Your task to perform on an android device: Open calendar and show me the first week of next month Image 0: 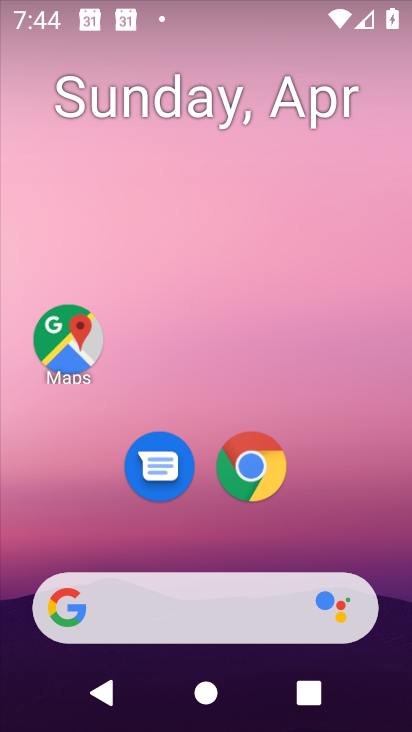
Step 0: drag from (198, 518) to (26, 9)
Your task to perform on an android device: Open calendar and show me the first week of next month Image 1: 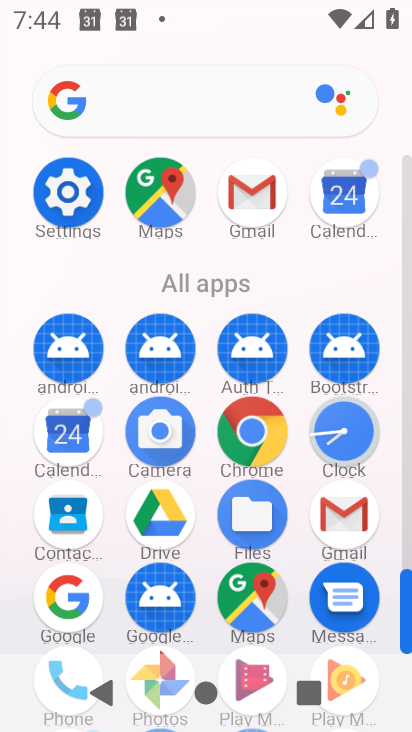
Step 1: click (57, 446)
Your task to perform on an android device: Open calendar and show me the first week of next month Image 2: 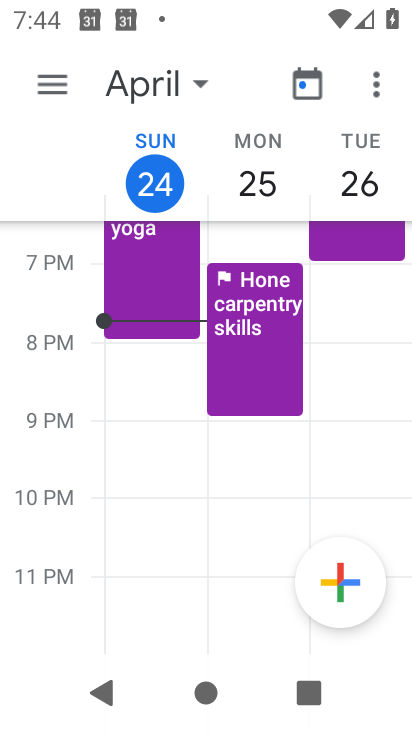
Step 2: click (231, 492)
Your task to perform on an android device: Open calendar and show me the first week of next month Image 3: 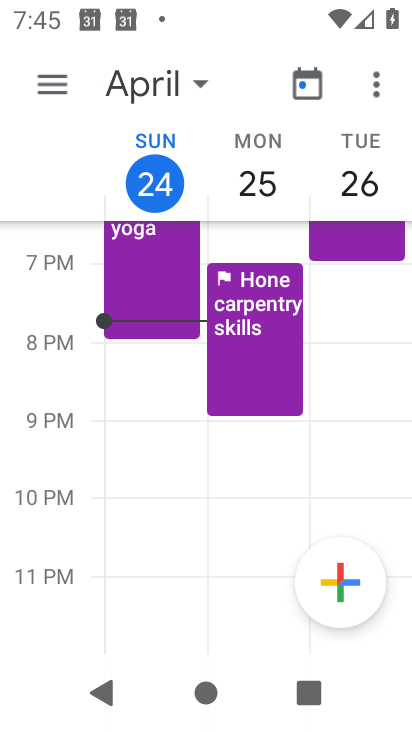
Step 3: click (45, 92)
Your task to perform on an android device: Open calendar and show me the first week of next month Image 4: 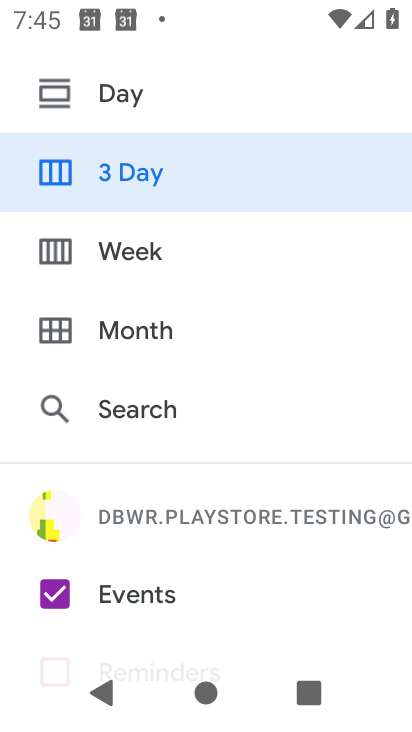
Step 4: click (141, 260)
Your task to perform on an android device: Open calendar and show me the first week of next month Image 5: 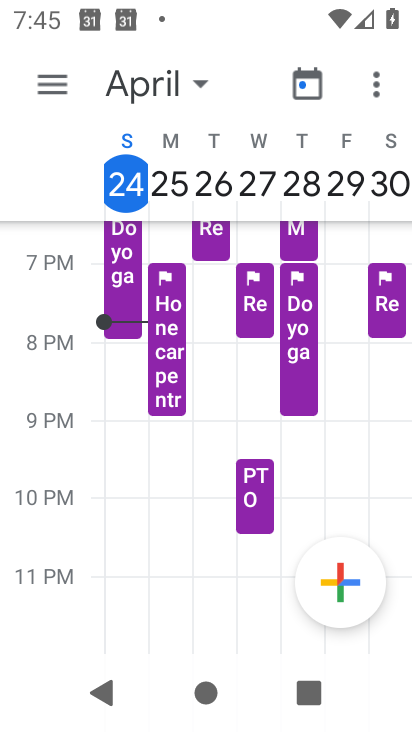
Step 5: task complete